Your task to perform on an android device: change notifications settings Image 0: 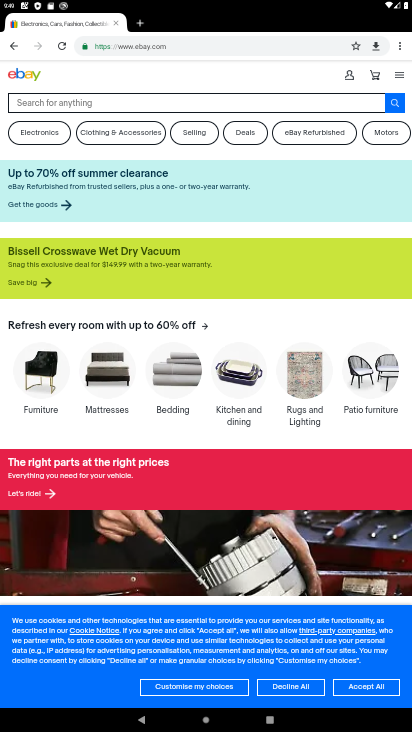
Step 0: press home button
Your task to perform on an android device: change notifications settings Image 1: 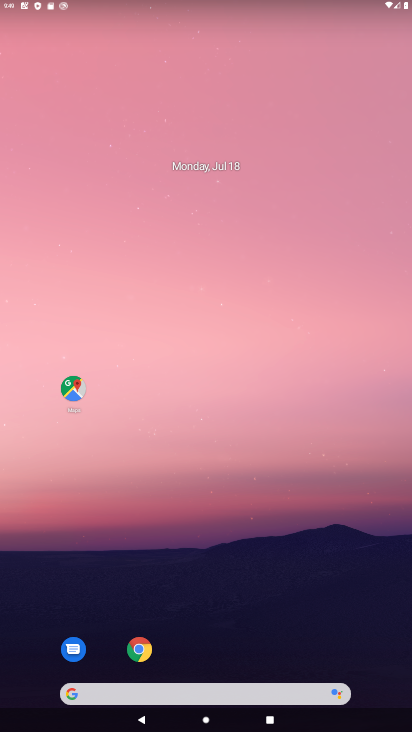
Step 1: drag from (85, 547) to (270, 107)
Your task to perform on an android device: change notifications settings Image 2: 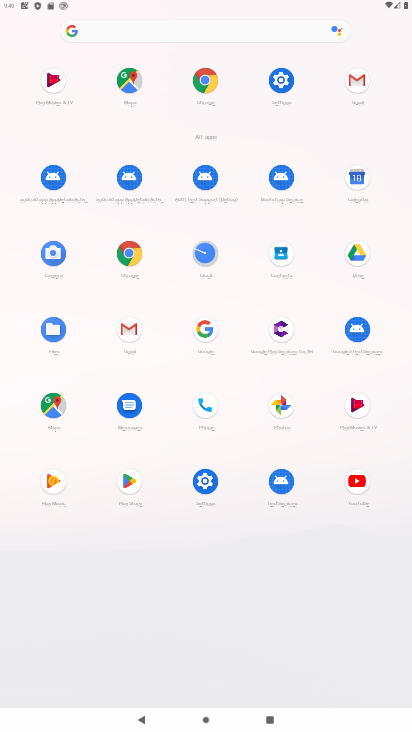
Step 2: click (276, 86)
Your task to perform on an android device: change notifications settings Image 3: 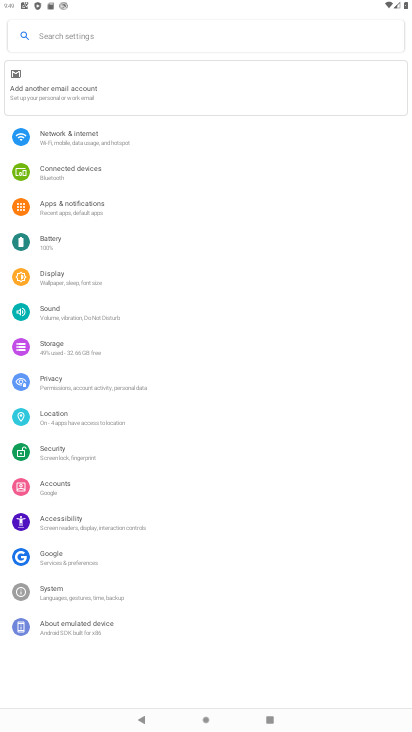
Step 3: click (120, 212)
Your task to perform on an android device: change notifications settings Image 4: 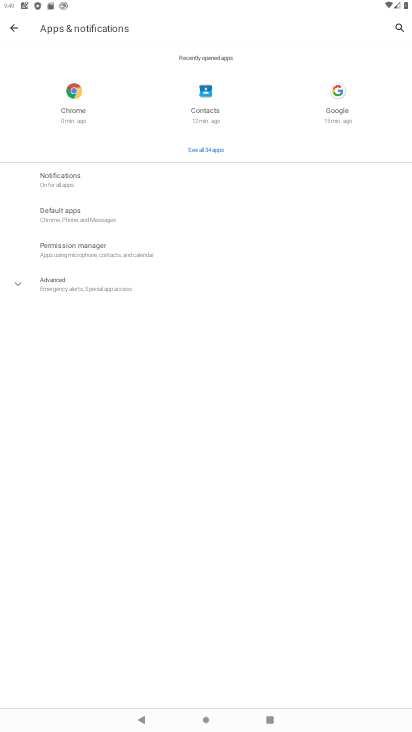
Step 4: click (147, 184)
Your task to perform on an android device: change notifications settings Image 5: 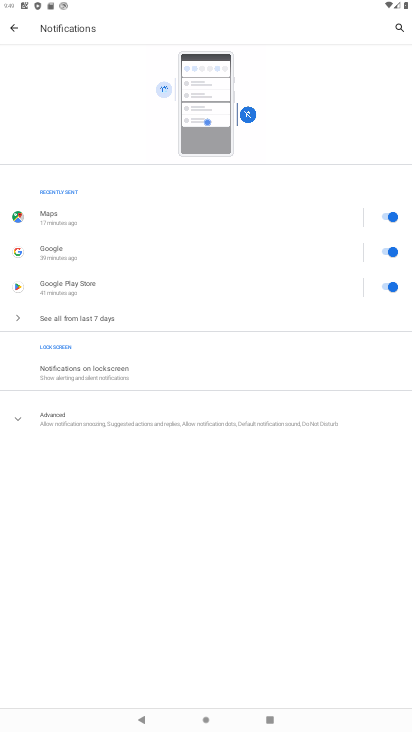
Step 5: click (397, 218)
Your task to perform on an android device: change notifications settings Image 6: 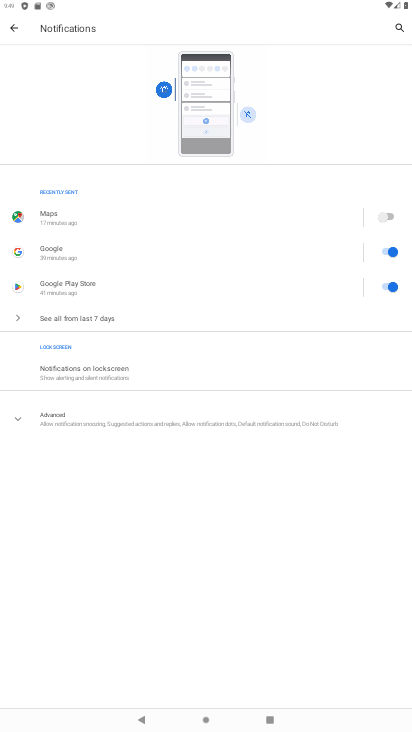
Step 6: task complete